Your task to perform on an android device: open app "Adobe Express: Graphic Design" (install if not already installed) Image 0: 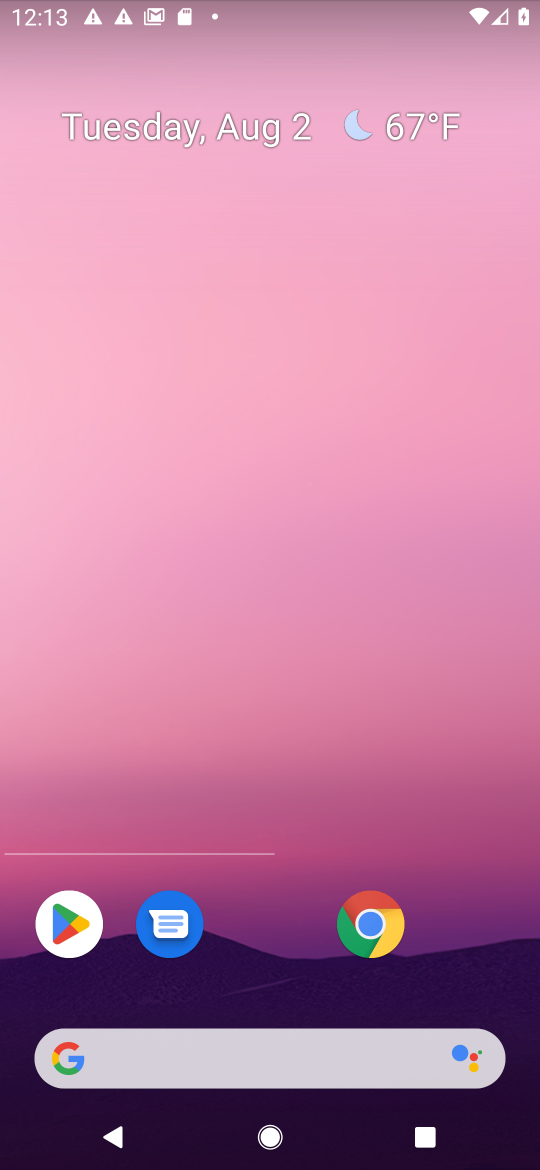
Step 0: press home button
Your task to perform on an android device: open app "Adobe Express: Graphic Design" (install if not already installed) Image 1: 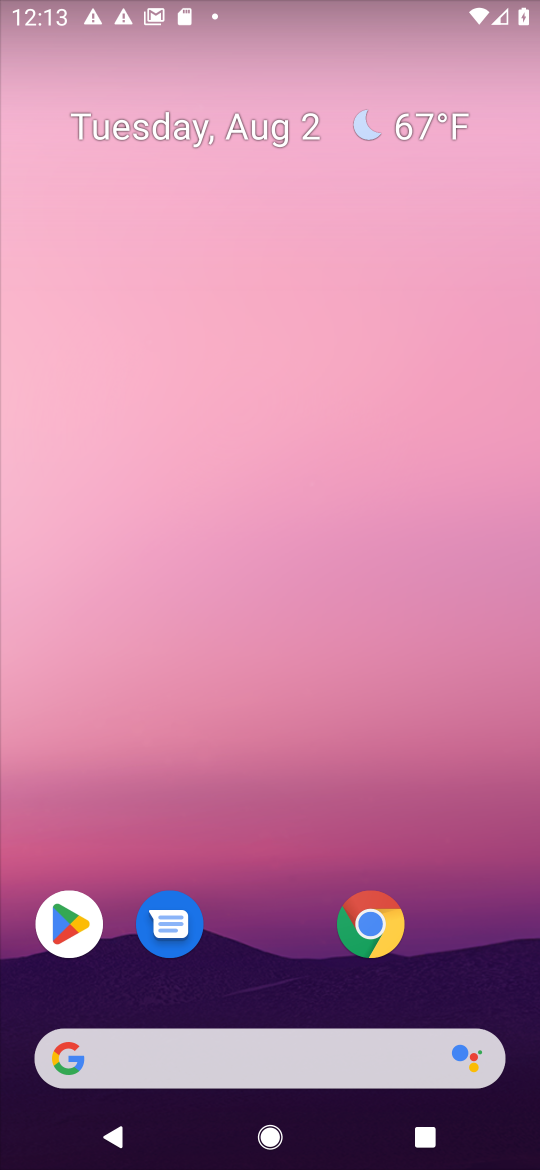
Step 1: click (66, 914)
Your task to perform on an android device: open app "Adobe Express: Graphic Design" (install if not already installed) Image 2: 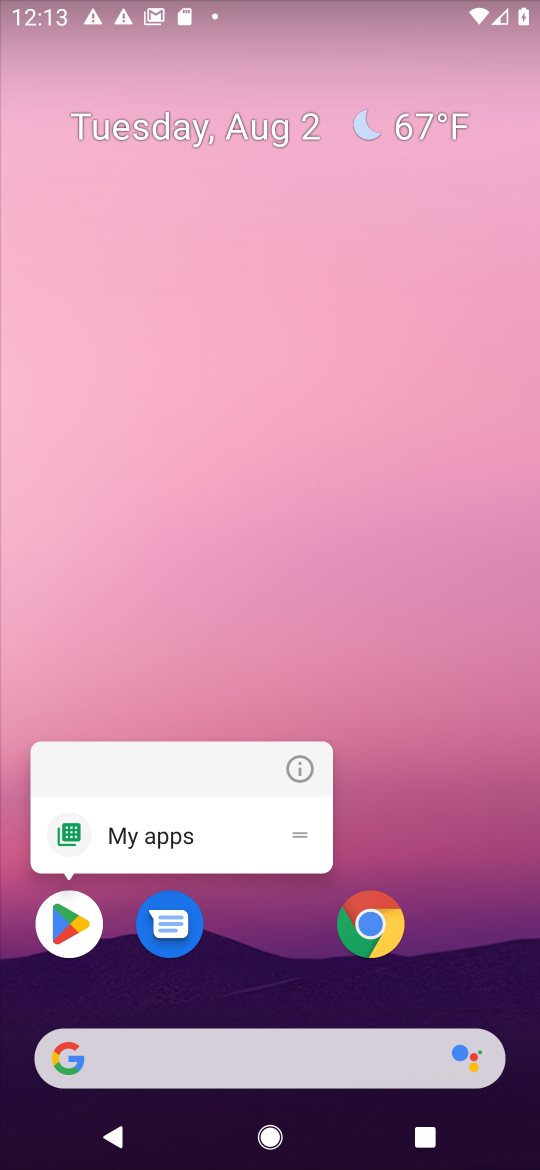
Step 2: click (67, 913)
Your task to perform on an android device: open app "Adobe Express: Graphic Design" (install if not already installed) Image 3: 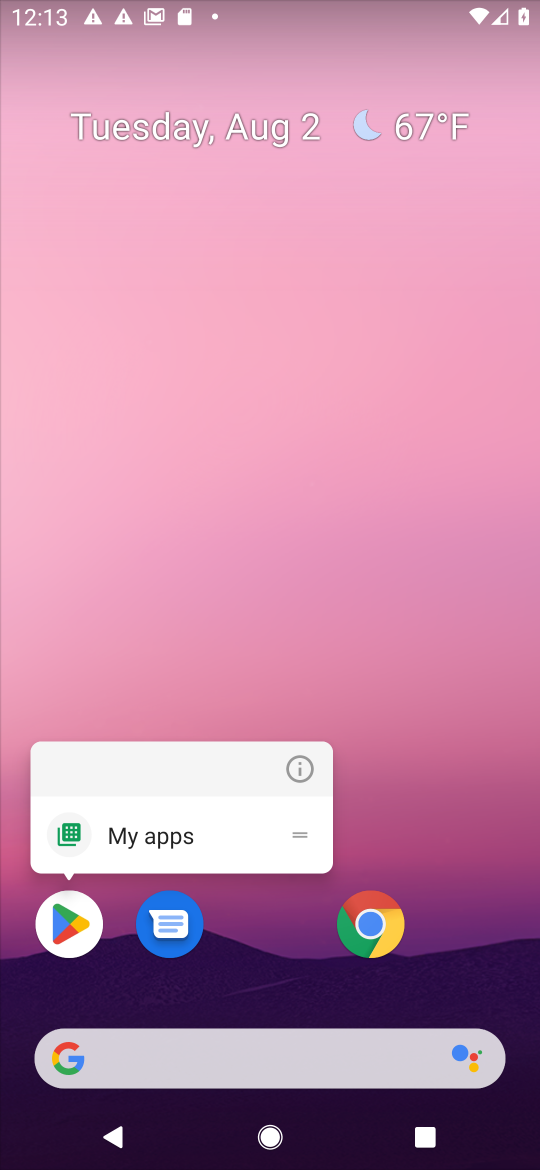
Step 3: click (62, 921)
Your task to perform on an android device: open app "Adobe Express: Graphic Design" (install if not already installed) Image 4: 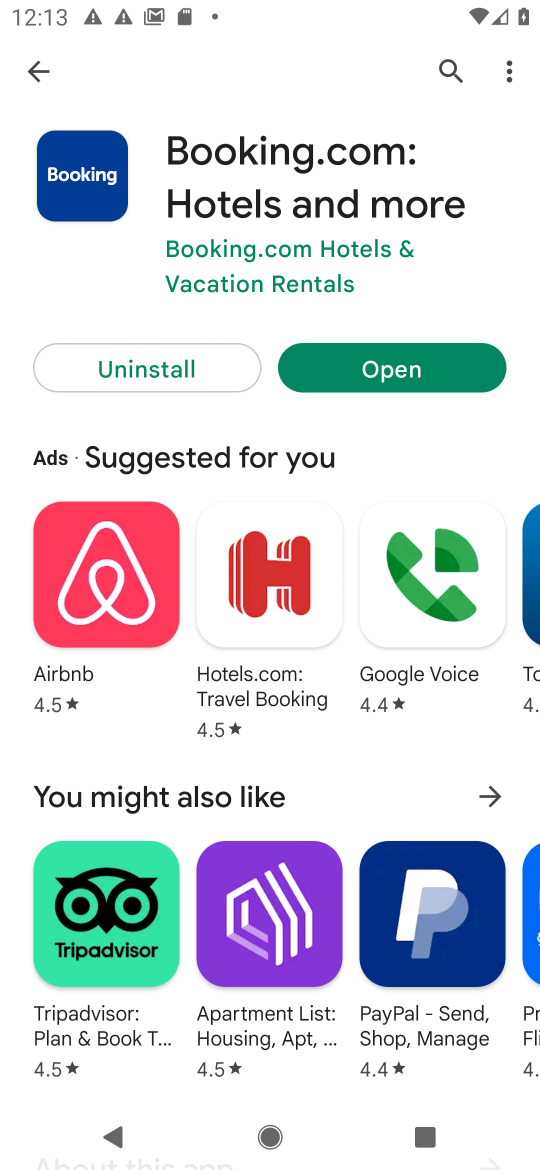
Step 4: click (449, 68)
Your task to perform on an android device: open app "Adobe Express: Graphic Design" (install if not already installed) Image 5: 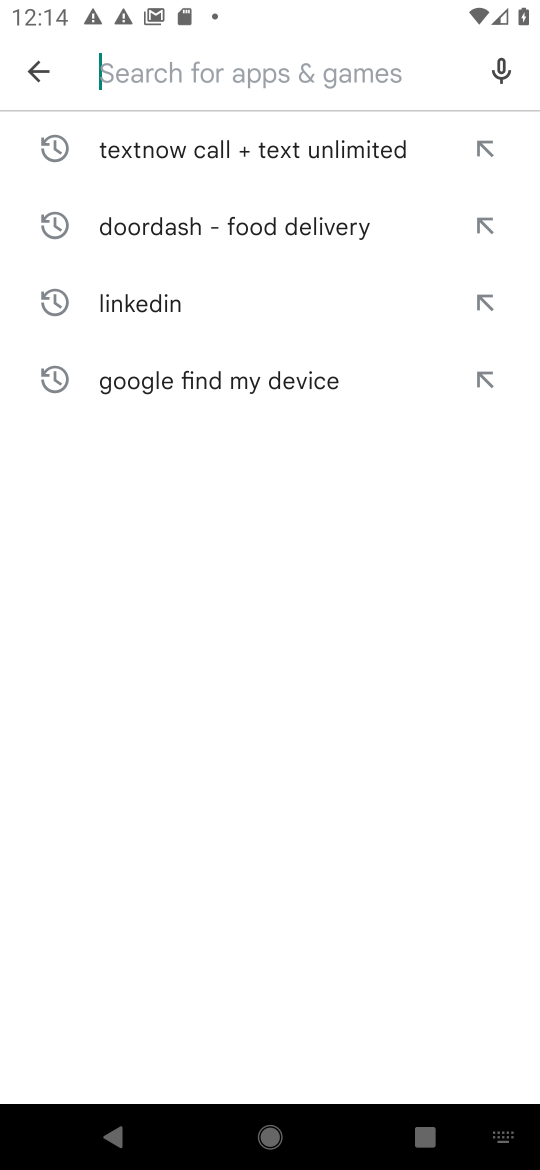
Step 5: type "Adobe Express: Graphic Design"
Your task to perform on an android device: open app "Adobe Express: Graphic Design" (install if not already installed) Image 6: 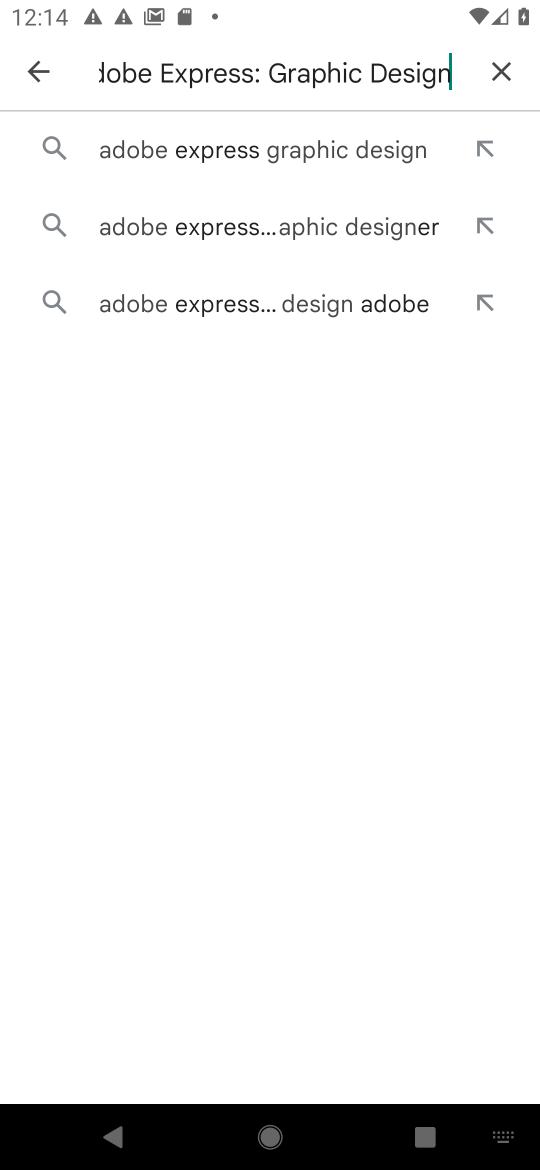
Step 6: click (285, 145)
Your task to perform on an android device: open app "Adobe Express: Graphic Design" (install if not already installed) Image 7: 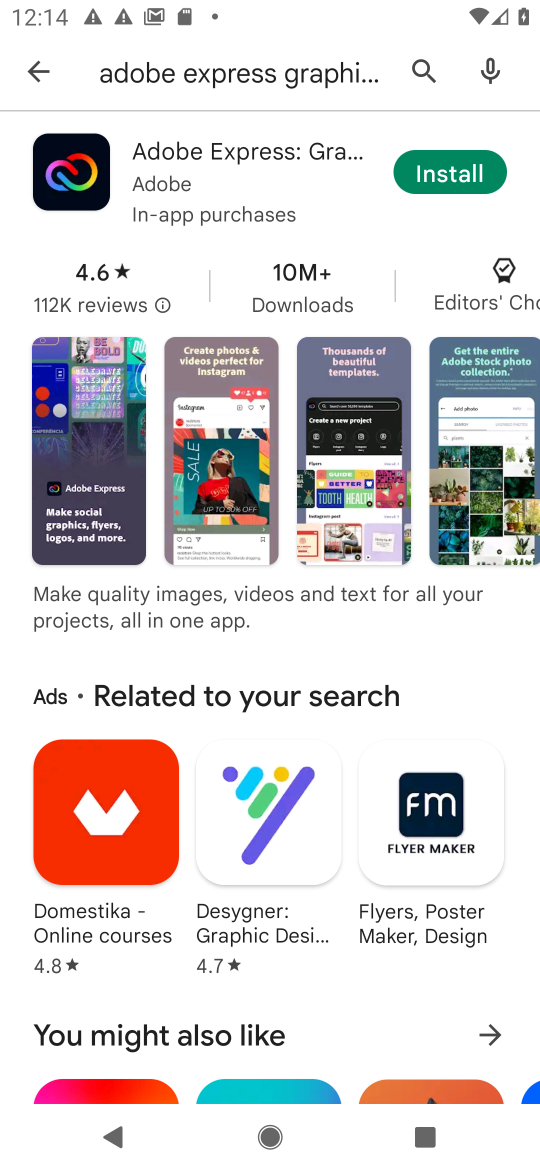
Step 7: click (454, 164)
Your task to perform on an android device: open app "Adobe Express: Graphic Design" (install if not already installed) Image 8: 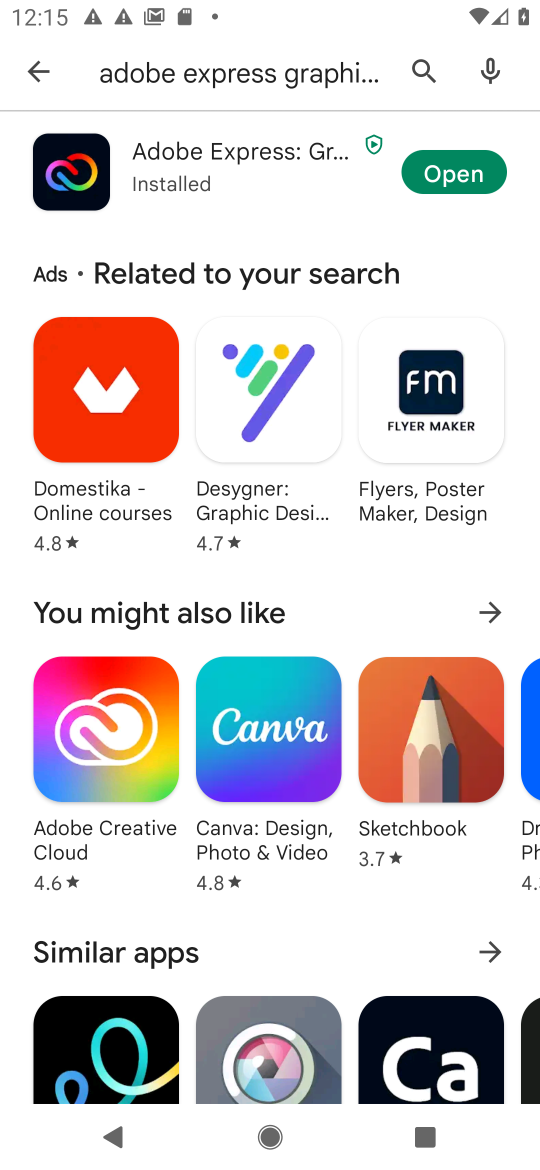
Step 8: click (458, 174)
Your task to perform on an android device: open app "Adobe Express: Graphic Design" (install if not already installed) Image 9: 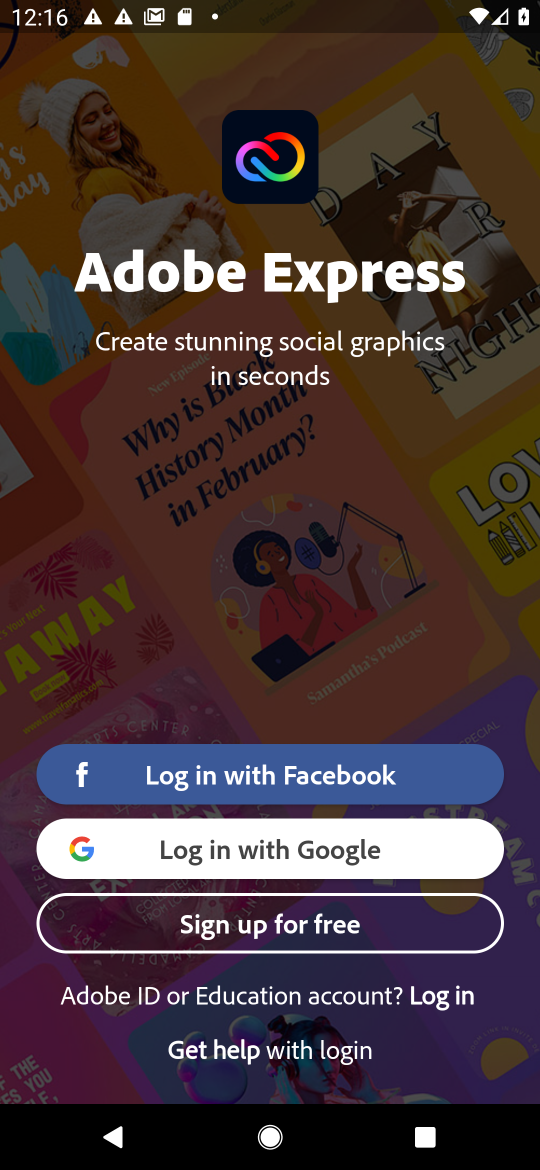
Step 9: click (258, 843)
Your task to perform on an android device: open app "Adobe Express: Graphic Design" (install if not already installed) Image 10: 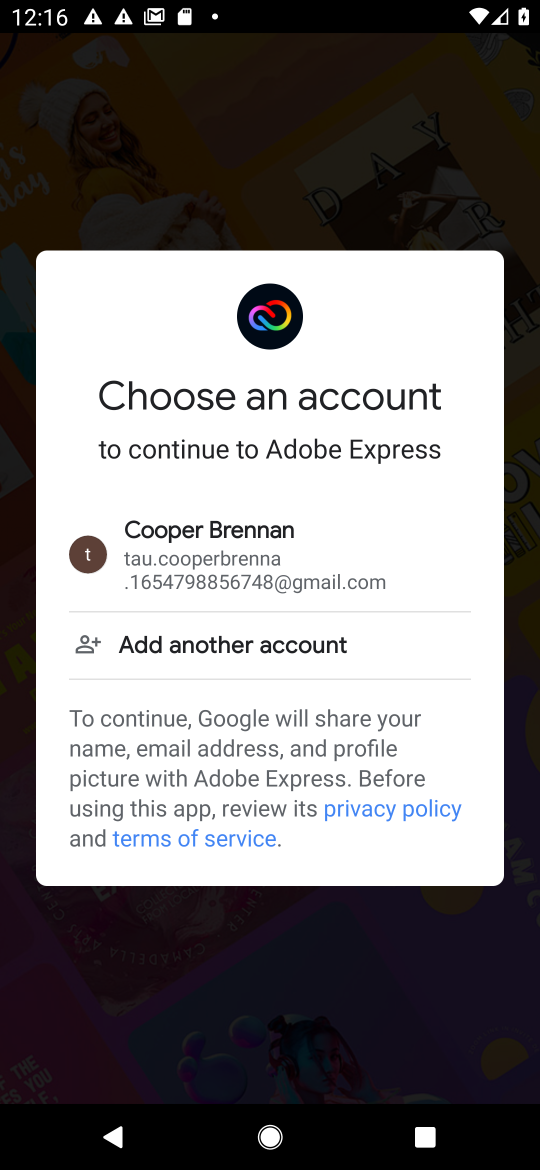
Step 10: click (232, 545)
Your task to perform on an android device: open app "Adobe Express: Graphic Design" (install if not already installed) Image 11: 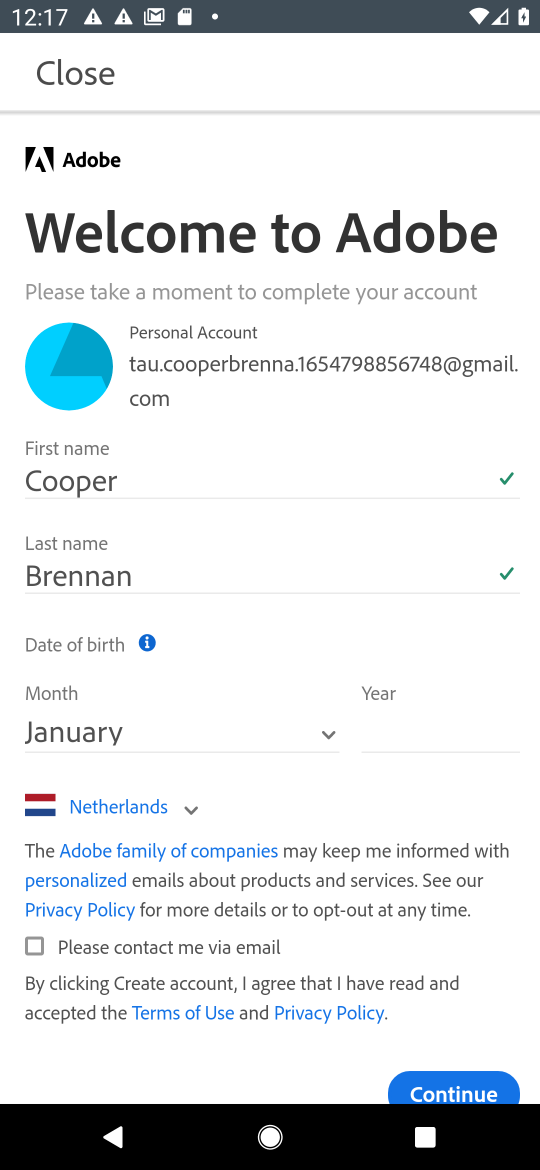
Step 11: click (422, 719)
Your task to perform on an android device: open app "Adobe Express: Graphic Design" (install if not already installed) Image 12: 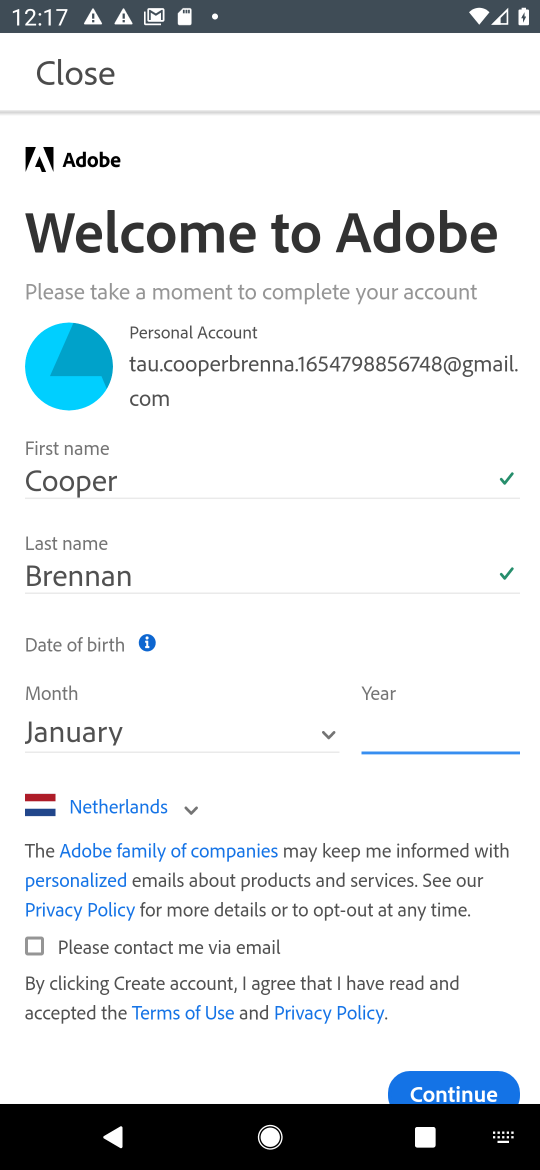
Step 12: type "1998"
Your task to perform on an android device: open app "Adobe Express: Graphic Design" (install if not already installed) Image 13: 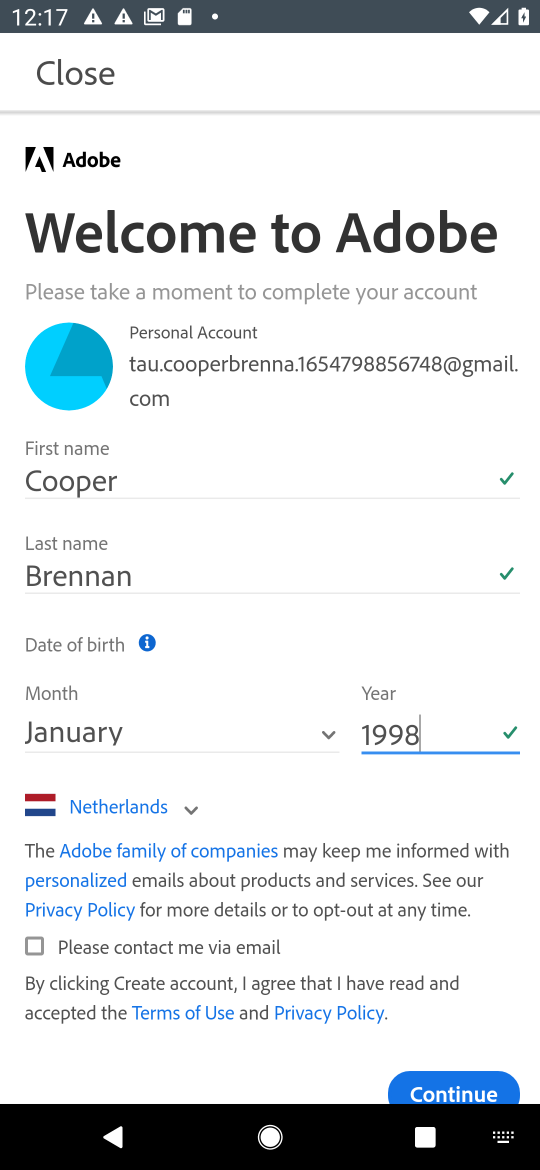
Step 13: click (470, 1078)
Your task to perform on an android device: open app "Adobe Express: Graphic Design" (install if not already installed) Image 14: 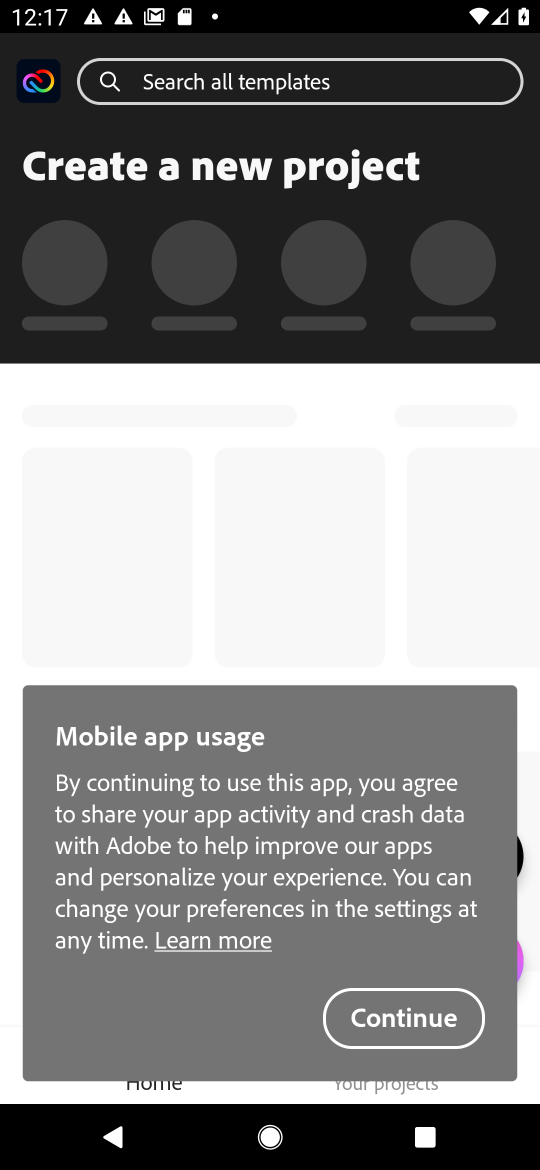
Step 14: click (407, 1020)
Your task to perform on an android device: open app "Adobe Express: Graphic Design" (install if not already installed) Image 15: 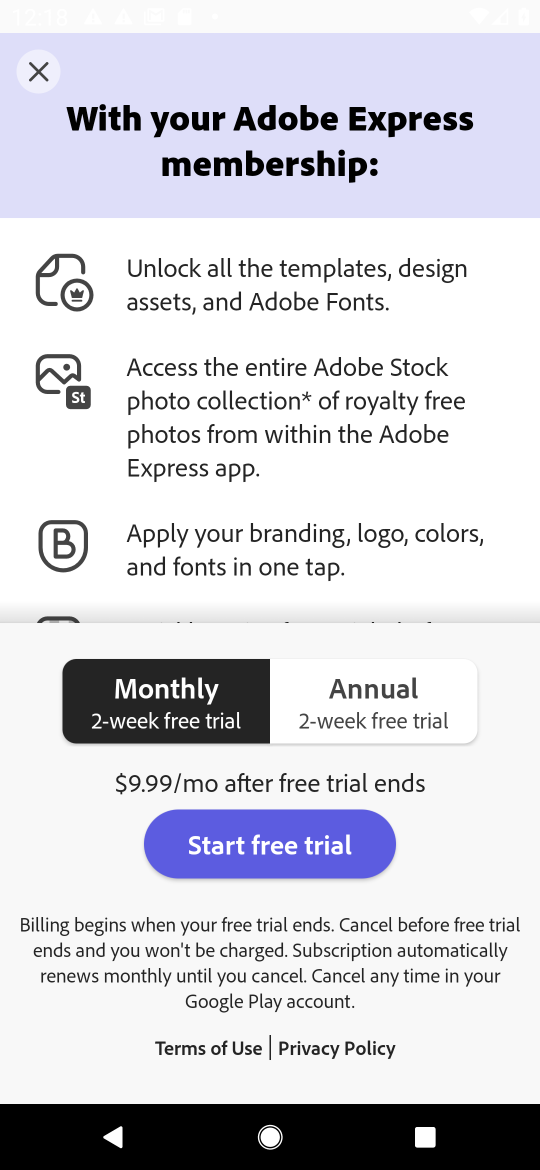
Step 15: click (42, 72)
Your task to perform on an android device: open app "Adobe Express: Graphic Design" (install if not already installed) Image 16: 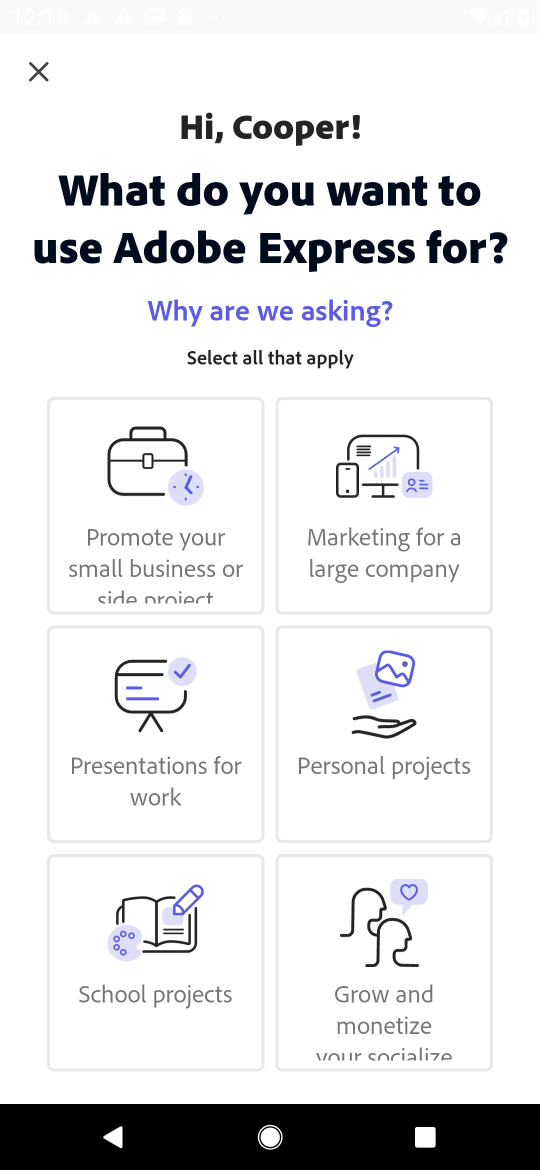
Step 16: click (36, 65)
Your task to perform on an android device: open app "Adobe Express: Graphic Design" (install if not already installed) Image 17: 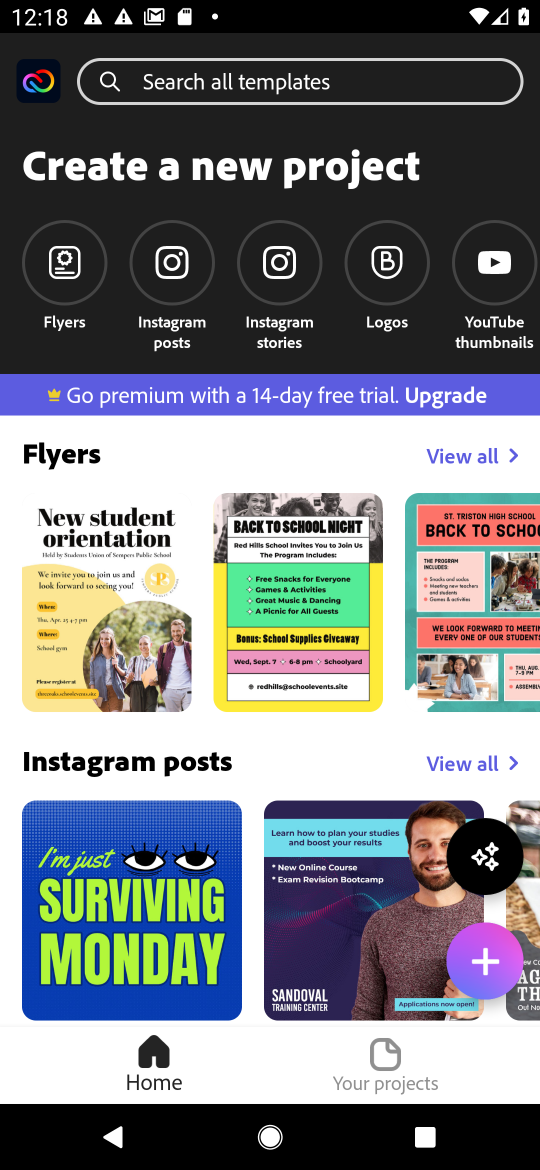
Step 17: task complete